Your task to perform on an android device: change your default location settings in chrome Image 0: 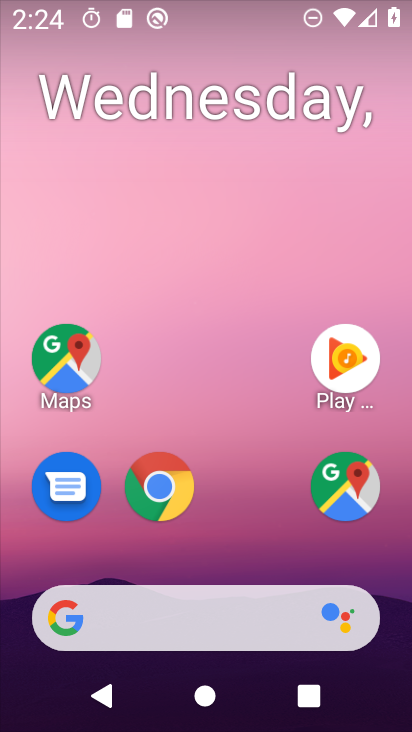
Step 0: drag from (256, 536) to (248, 115)
Your task to perform on an android device: change your default location settings in chrome Image 1: 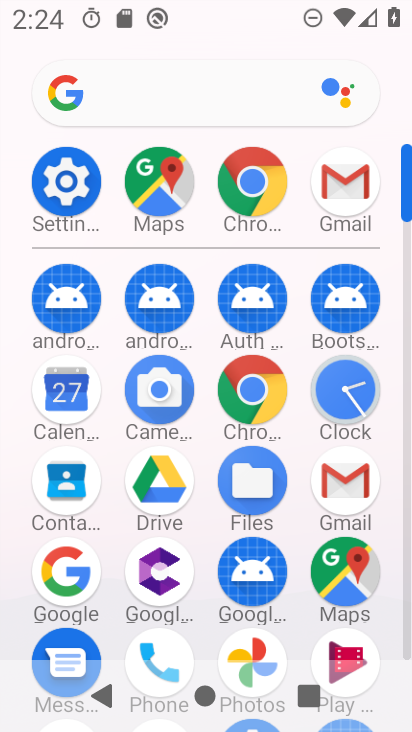
Step 1: click (258, 390)
Your task to perform on an android device: change your default location settings in chrome Image 2: 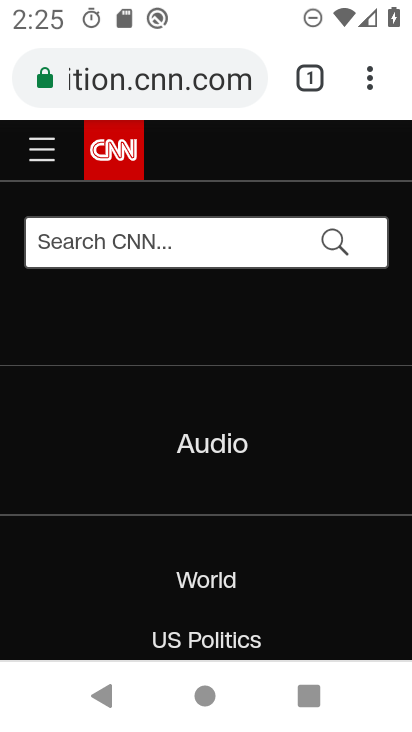
Step 2: click (369, 85)
Your task to perform on an android device: change your default location settings in chrome Image 3: 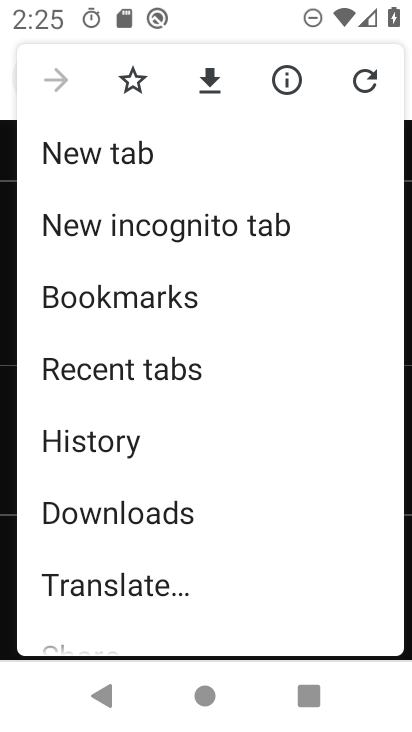
Step 3: drag from (341, 501) to (340, 383)
Your task to perform on an android device: change your default location settings in chrome Image 4: 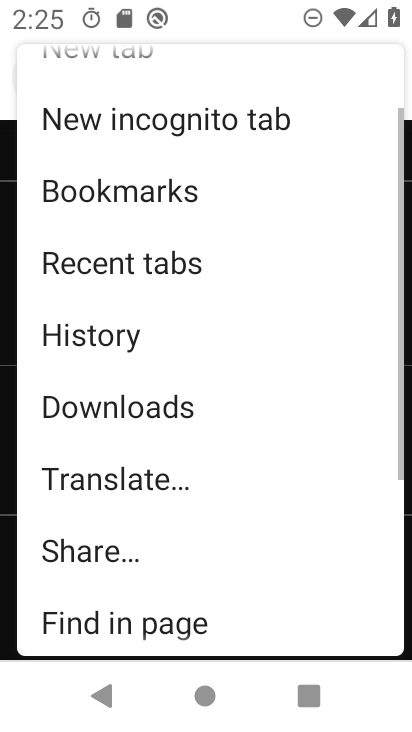
Step 4: drag from (326, 511) to (321, 371)
Your task to perform on an android device: change your default location settings in chrome Image 5: 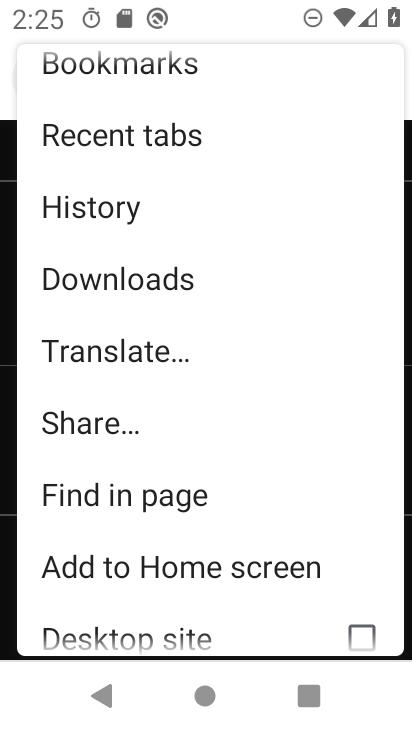
Step 5: drag from (331, 485) to (314, 307)
Your task to perform on an android device: change your default location settings in chrome Image 6: 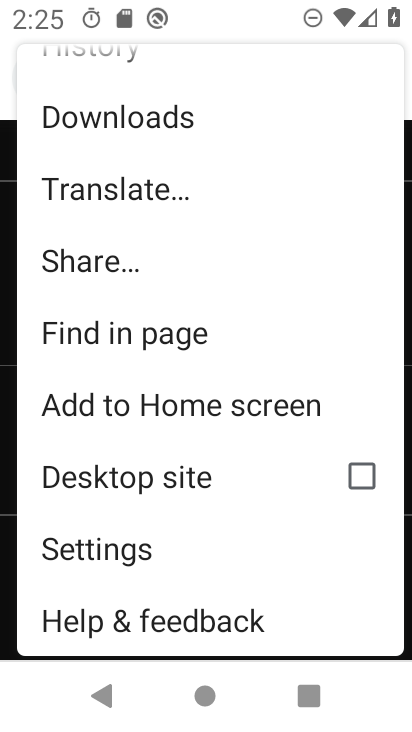
Step 6: click (275, 559)
Your task to perform on an android device: change your default location settings in chrome Image 7: 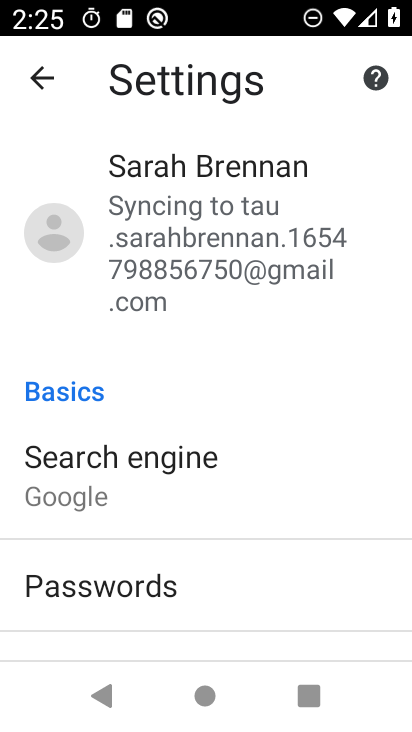
Step 7: drag from (276, 558) to (289, 454)
Your task to perform on an android device: change your default location settings in chrome Image 8: 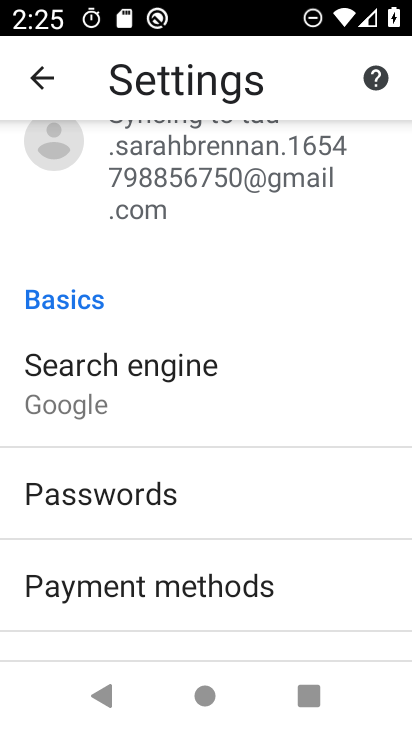
Step 8: drag from (323, 569) to (325, 434)
Your task to perform on an android device: change your default location settings in chrome Image 9: 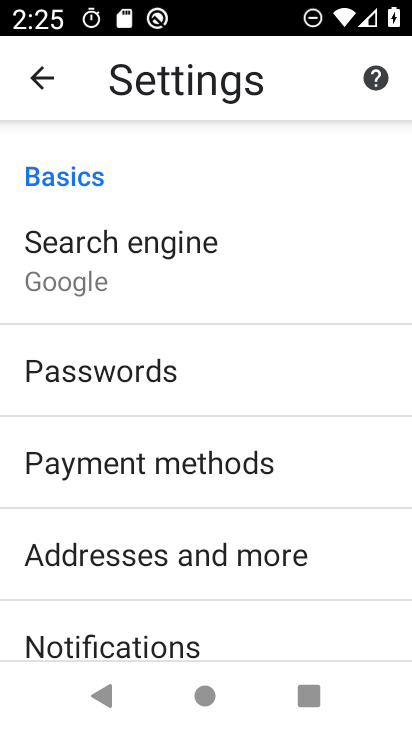
Step 9: drag from (336, 515) to (336, 361)
Your task to perform on an android device: change your default location settings in chrome Image 10: 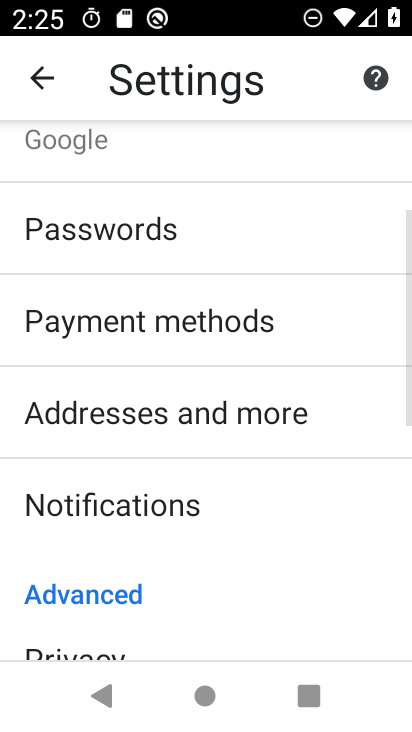
Step 10: drag from (347, 435) to (351, 328)
Your task to perform on an android device: change your default location settings in chrome Image 11: 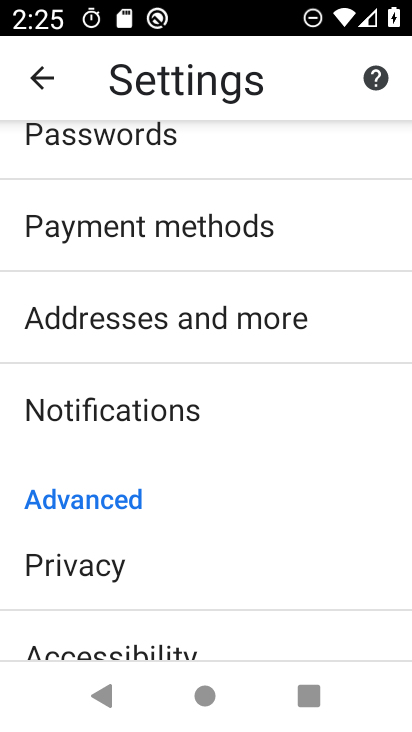
Step 11: drag from (332, 535) to (333, 398)
Your task to perform on an android device: change your default location settings in chrome Image 12: 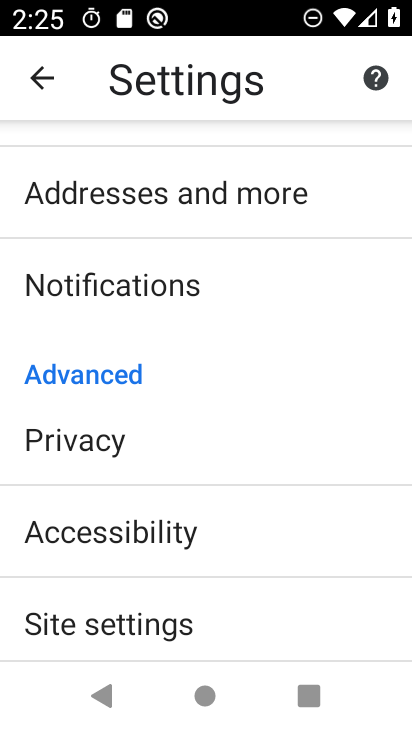
Step 12: drag from (304, 525) to (299, 406)
Your task to perform on an android device: change your default location settings in chrome Image 13: 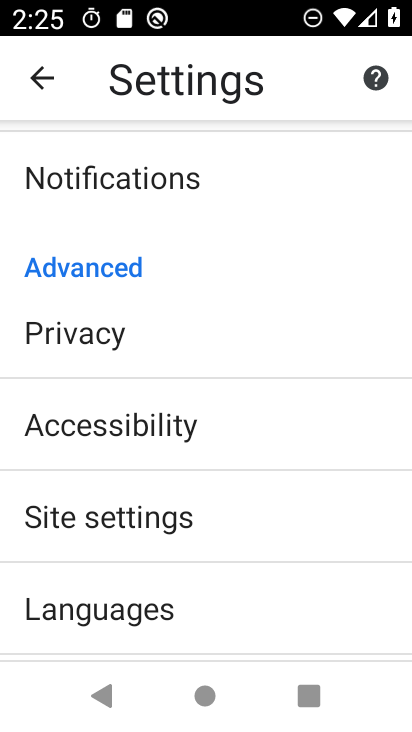
Step 13: drag from (296, 552) to (289, 430)
Your task to perform on an android device: change your default location settings in chrome Image 14: 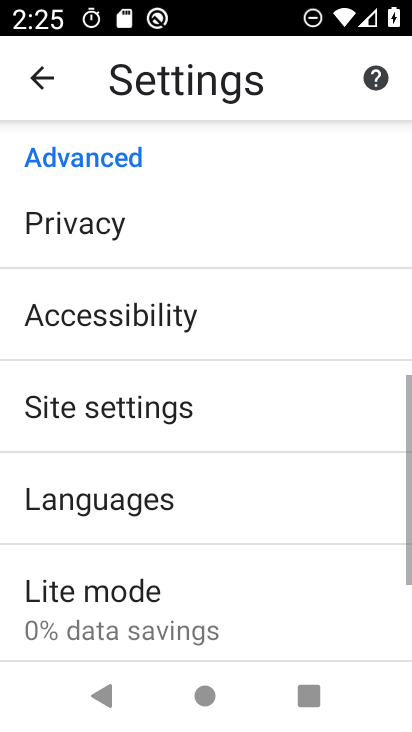
Step 14: click (289, 430)
Your task to perform on an android device: change your default location settings in chrome Image 15: 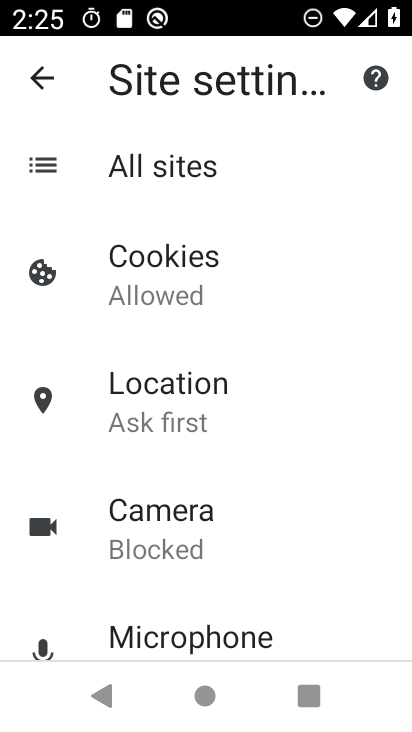
Step 15: drag from (296, 496) to (294, 418)
Your task to perform on an android device: change your default location settings in chrome Image 16: 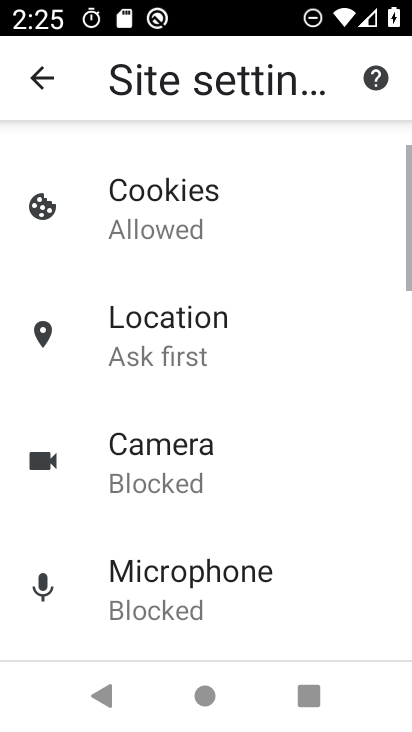
Step 16: click (248, 340)
Your task to perform on an android device: change your default location settings in chrome Image 17: 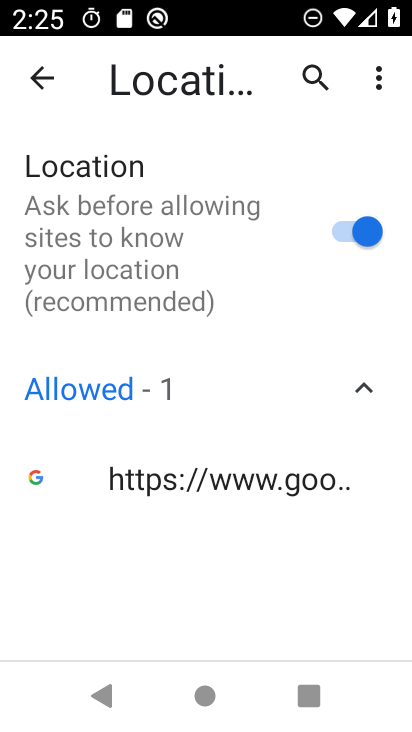
Step 17: click (367, 243)
Your task to perform on an android device: change your default location settings in chrome Image 18: 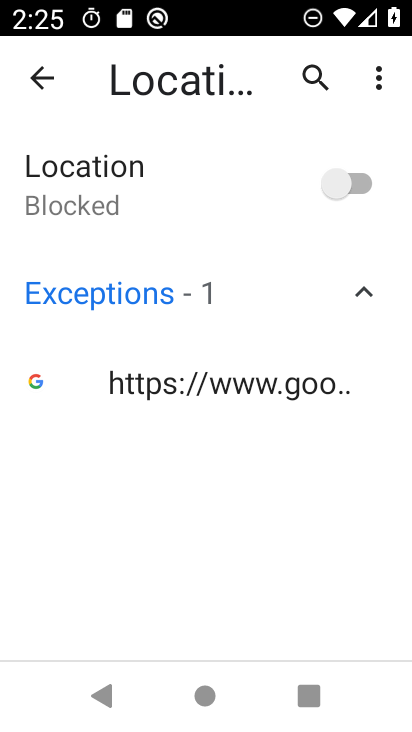
Step 18: task complete